Your task to perform on an android device: Go to eBay Image 0: 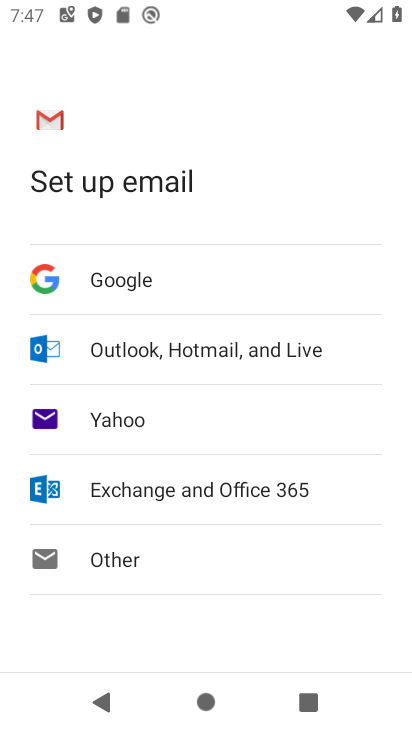
Step 0: press home button
Your task to perform on an android device: Go to eBay Image 1: 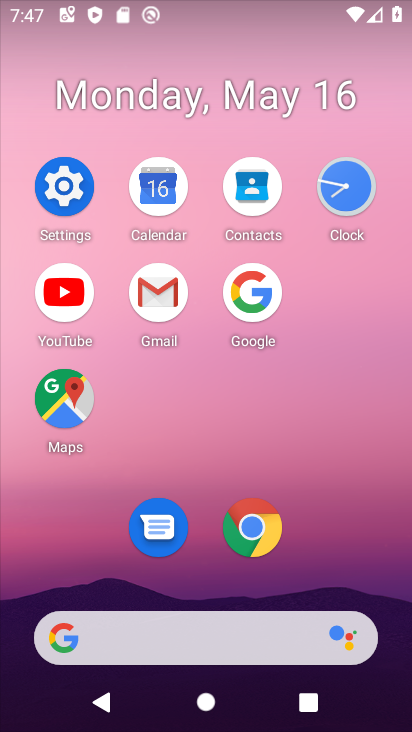
Step 1: click (264, 527)
Your task to perform on an android device: Go to eBay Image 2: 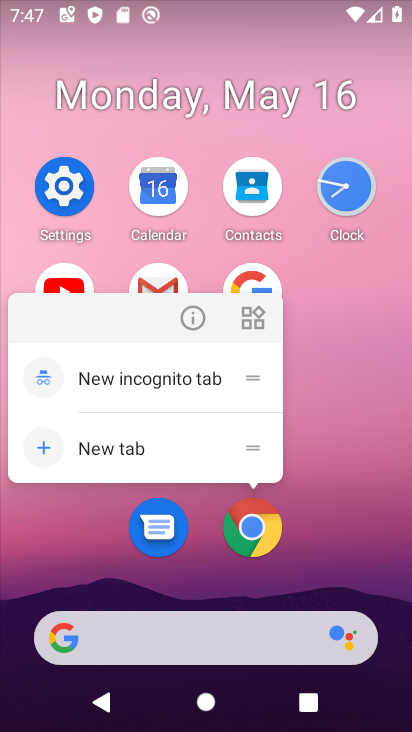
Step 2: click (264, 527)
Your task to perform on an android device: Go to eBay Image 3: 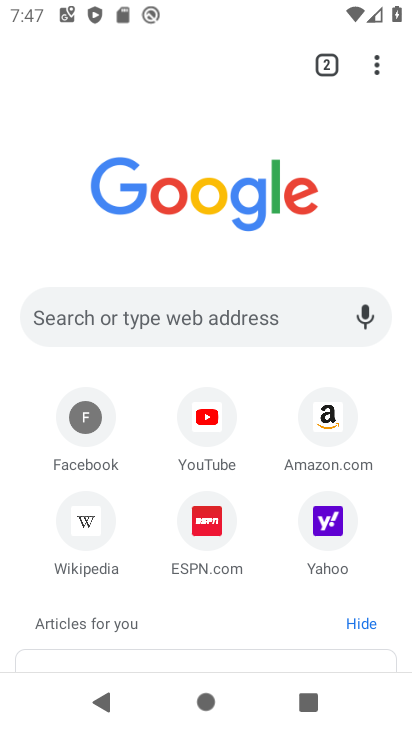
Step 3: click (206, 312)
Your task to perform on an android device: Go to eBay Image 4: 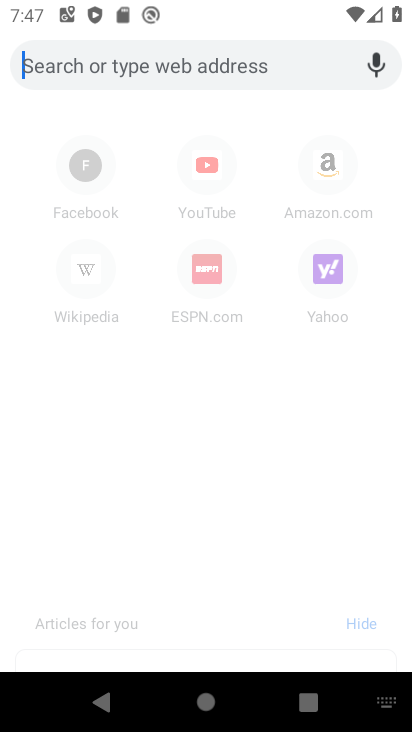
Step 4: type "ebay"
Your task to perform on an android device: Go to eBay Image 5: 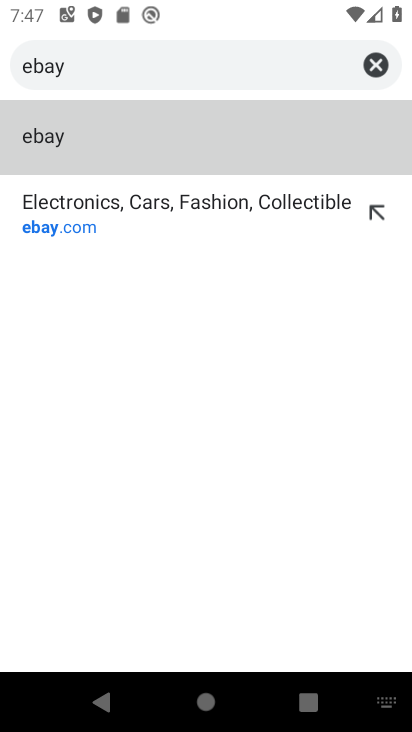
Step 5: click (95, 226)
Your task to perform on an android device: Go to eBay Image 6: 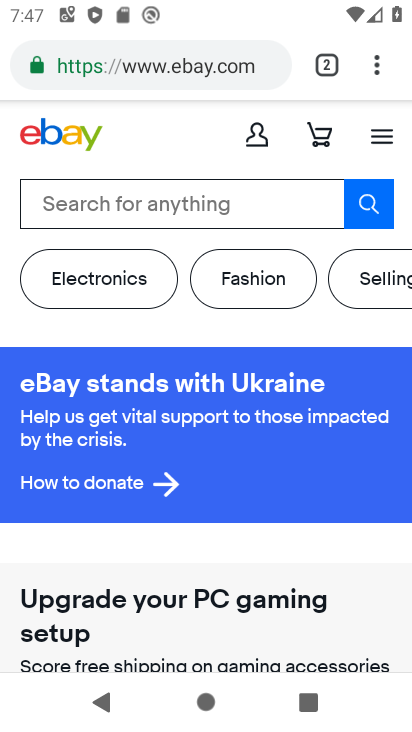
Step 6: task complete